Your task to perform on an android device: Open Google Maps Image 0: 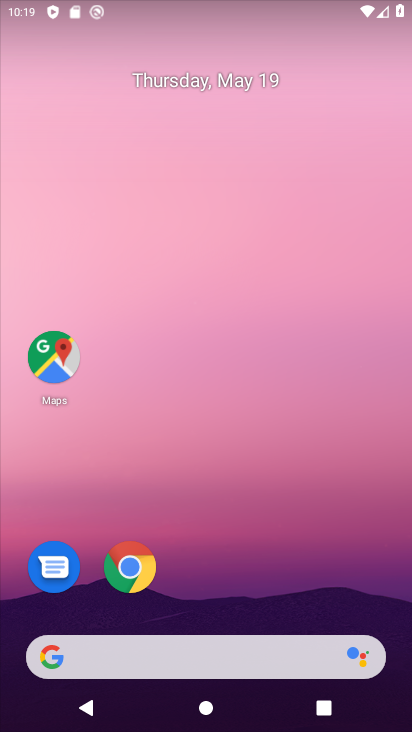
Step 0: click (51, 356)
Your task to perform on an android device: Open Google Maps Image 1: 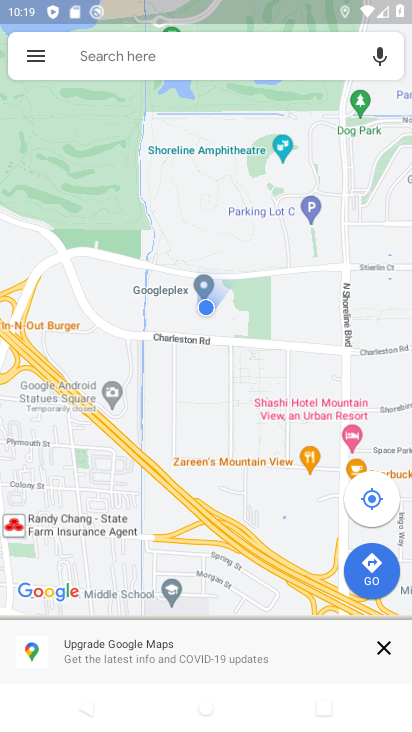
Step 1: click (379, 647)
Your task to perform on an android device: Open Google Maps Image 2: 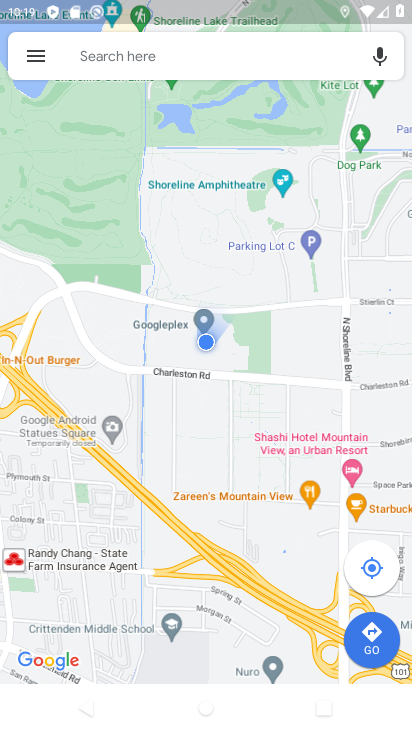
Step 2: task complete